Your task to perform on an android device: change notifications settings Image 0: 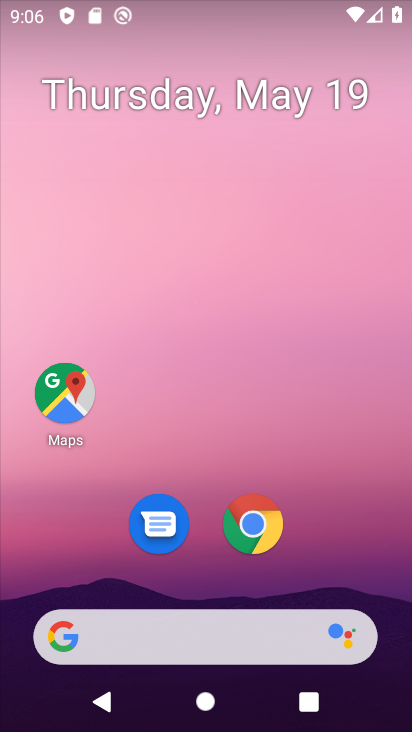
Step 0: drag from (319, 505) to (319, 40)
Your task to perform on an android device: change notifications settings Image 1: 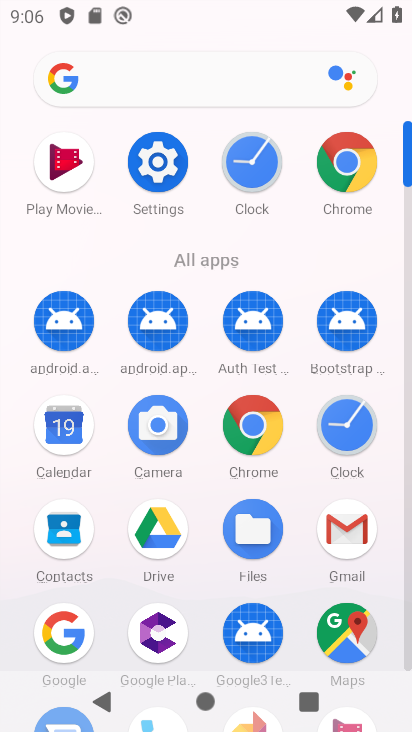
Step 1: click (162, 171)
Your task to perform on an android device: change notifications settings Image 2: 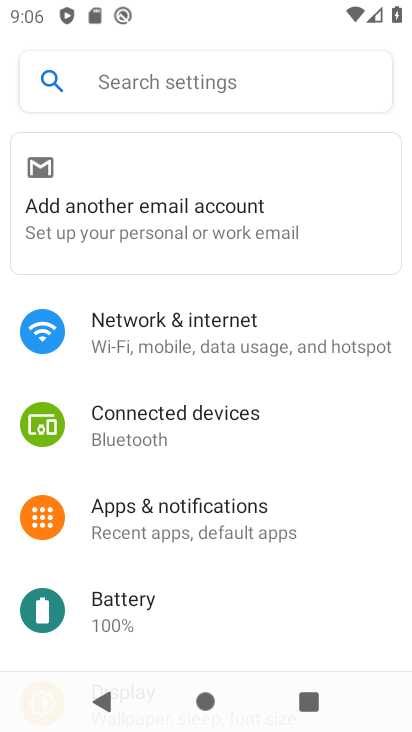
Step 2: click (229, 518)
Your task to perform on an android device: change notifications settings Image 3: 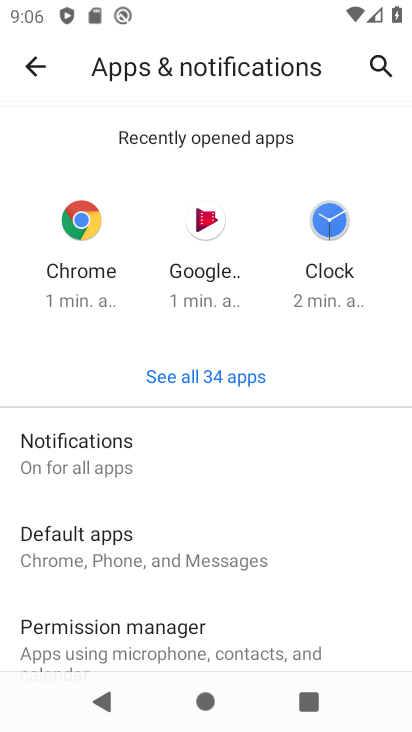
Step 3: click (103, 448)
Your task to perform on an android device: change notifications settings Image 4: 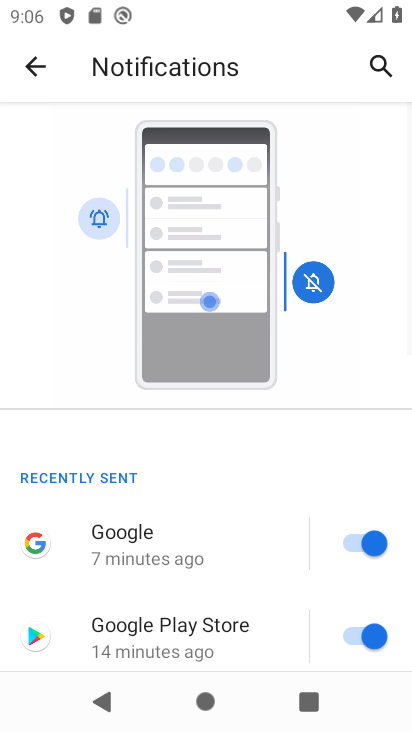
Step 4: drag from (243, 554) to (299, 137)
Your task to perform on an android device: change notifications settings Image 5: 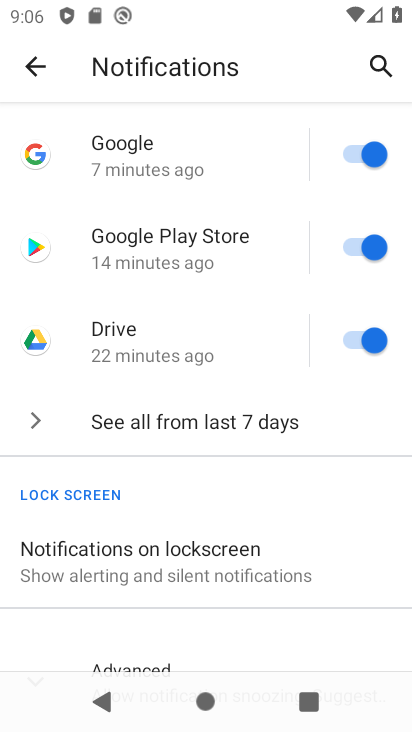
Step 5: click (215, 413)
Your task to perform on an android device: change notifications settings Image 6: 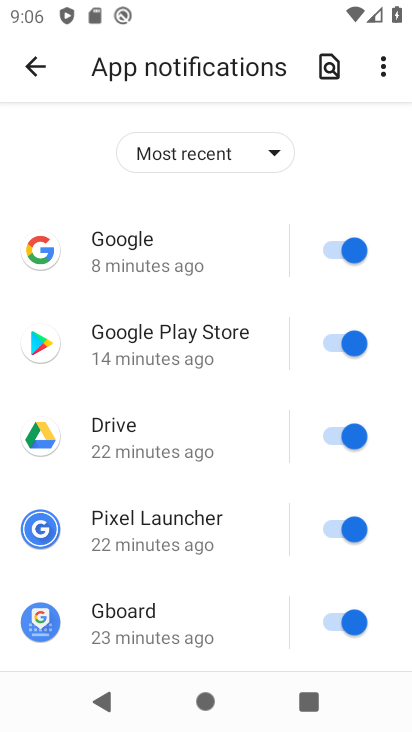
Step 6: click (348, 239)
Your task to perform on an android device: change notifications settings Image 7: 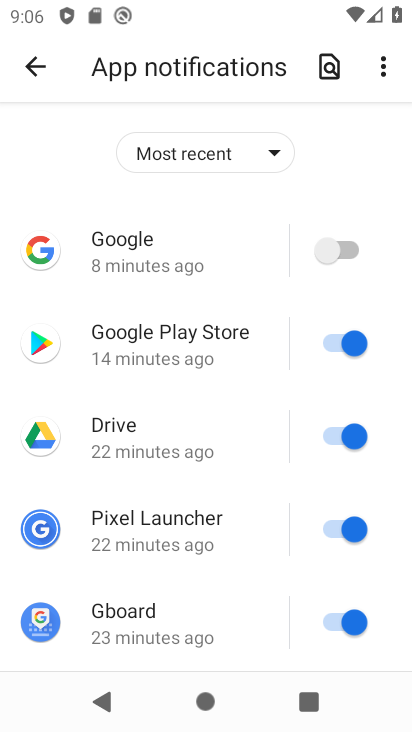
Step 7: click (350, 338)
Your task to perform on an android device: change notifications settings Image 8: 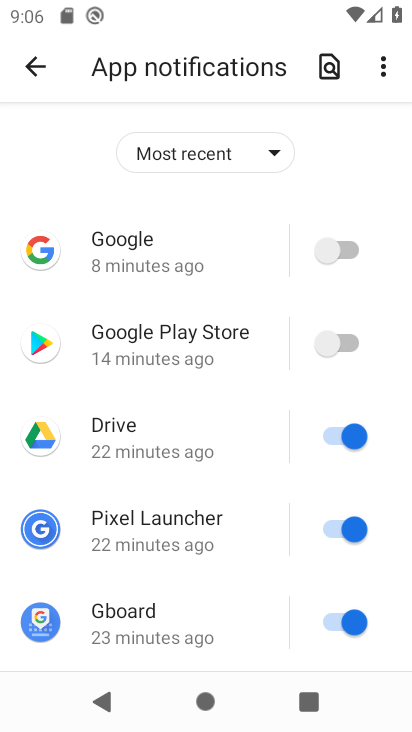
Step 8: click (338, 433)
Your task to perform on an android device: change notifications settings Image 9: 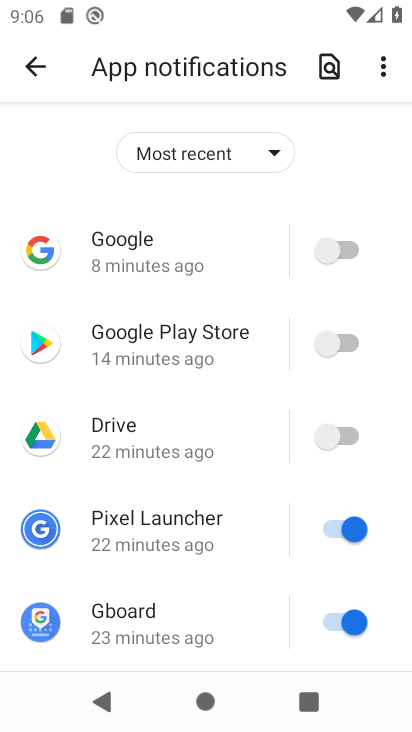
Step 9: click (342, 521)
Your task to perform on an android device: change notifications settings Image 10: 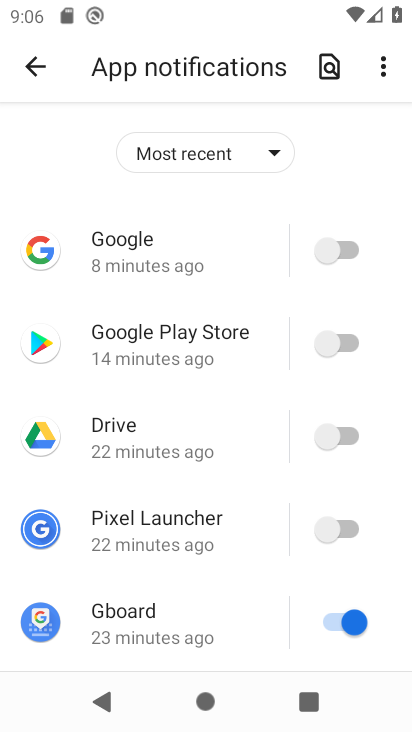
Step 10: click (338, 618)
Your task to perform on an android device: change notifications settings Image 11: 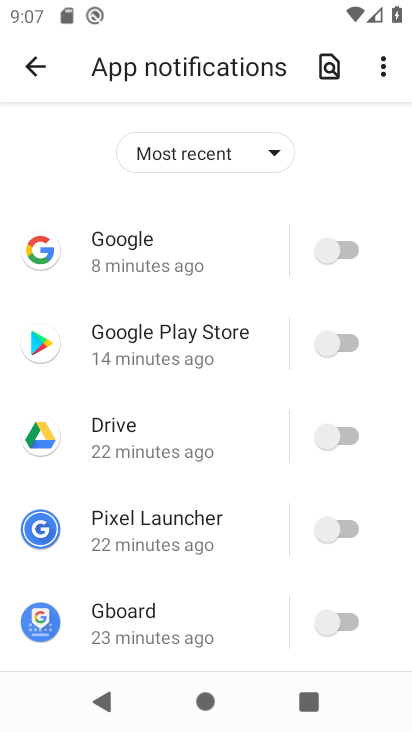
Step 11: task complete